Your task to perform on an android device: Go to internet settings Image 0: 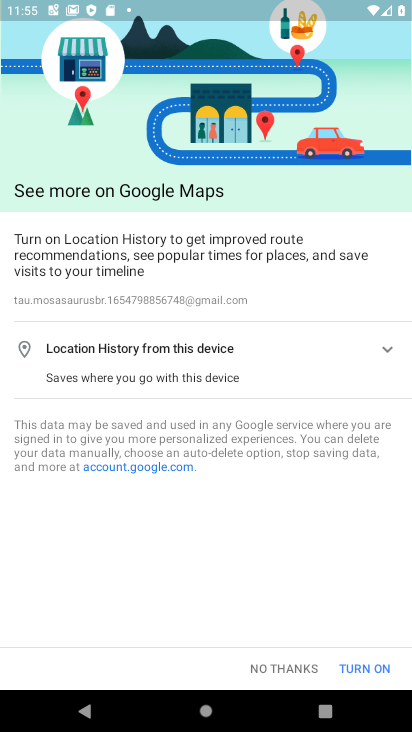
Step 0: press home button
Your task to perform on an android device: Go to internet settings Image 1: 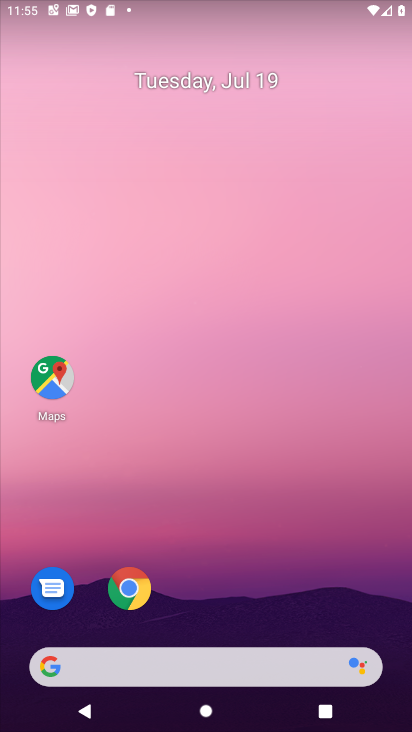
Step 1: drag from (388, 676) to (279, 49)
Your task to perform on an android device: Go to internet settings Image 2: 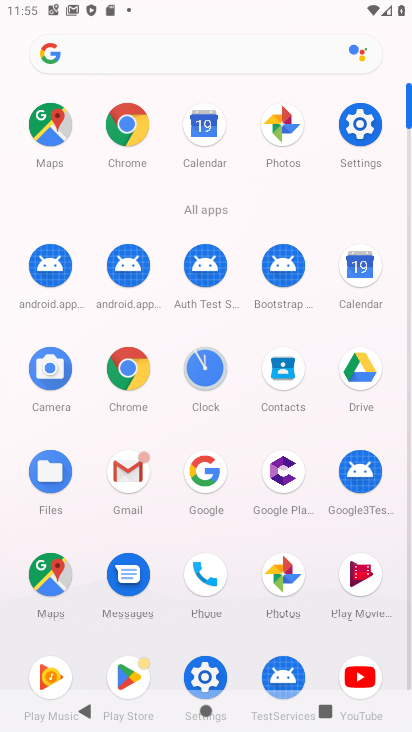
Step 2: click (353, 132)
Your task to perform on an android device: Go to internet settings Image 3: 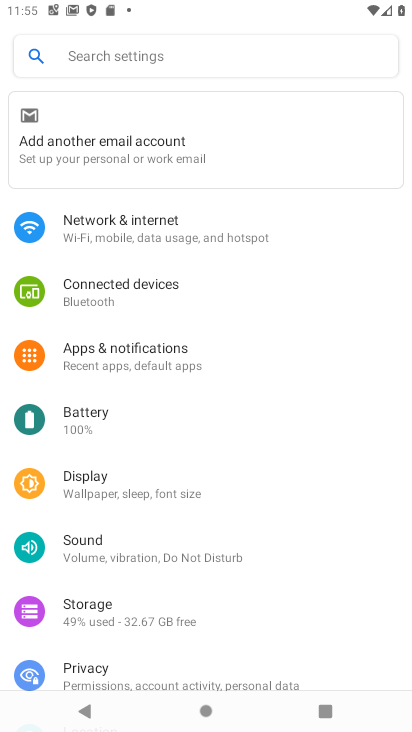
Step 3: click (114, 231)
Your task to perform on an android device: Go to internet settings Image 4: 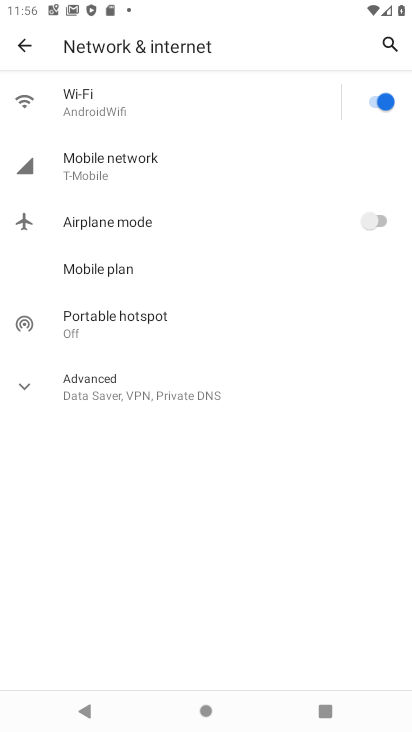
Step 4: click (95, 158)
Your task to perform on an android device: Go to internet settings Image 5: 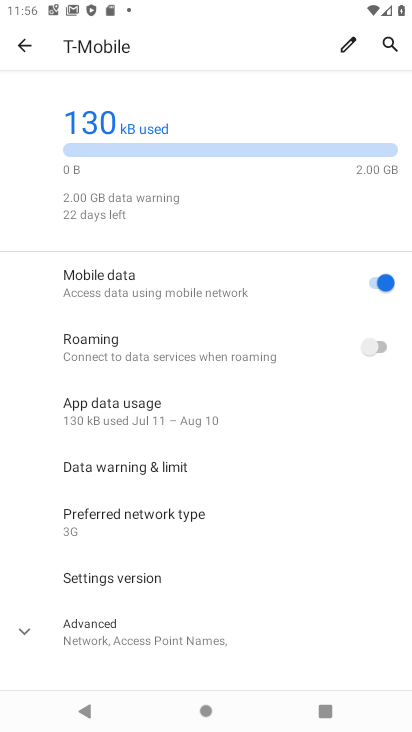
Step 5: click (25, 40)
Your task to perform on an android device: Go to internet settings Image 6: 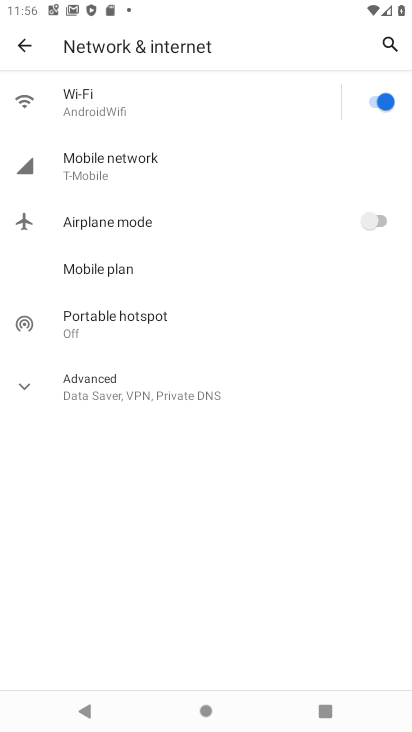
Step 6: click (28, 376)
Your task to perform on an android device: Go to internet settings Image 7: 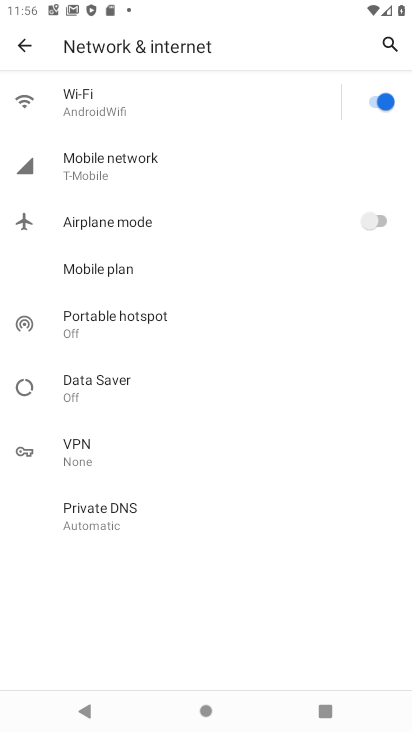
Step 7: task complete